Your task to perform on an android device: change the clock display to show seconds Image 0: 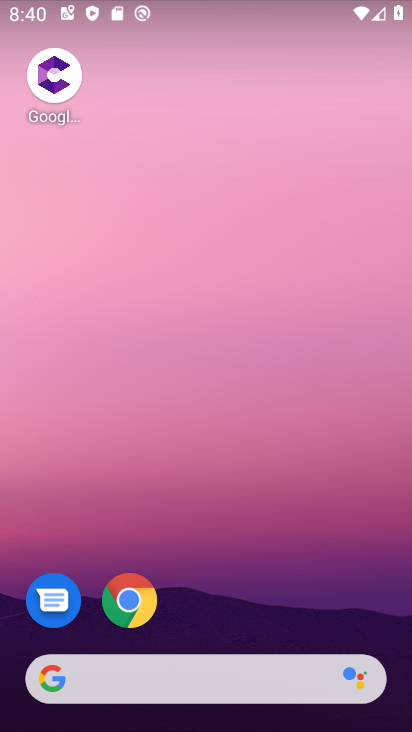
Step 0: drag from (261, 622) to (297, 36)
Your task to perform on an android device: change the clock display to show seconds Image 1: 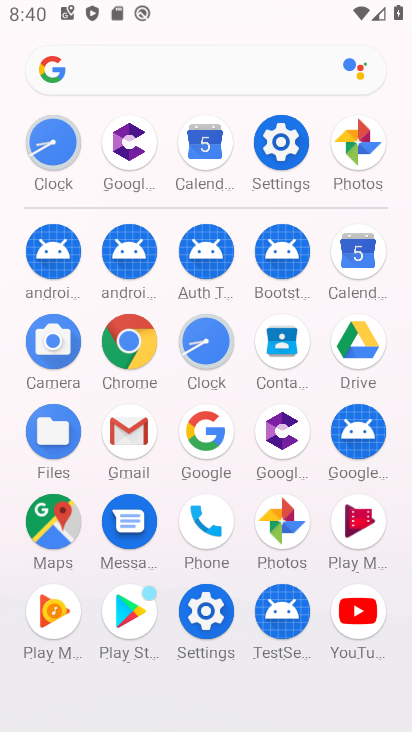
Step 1: click (65, 138)
Your task to perform on an android device: change the clock display to show seconds Image 2: 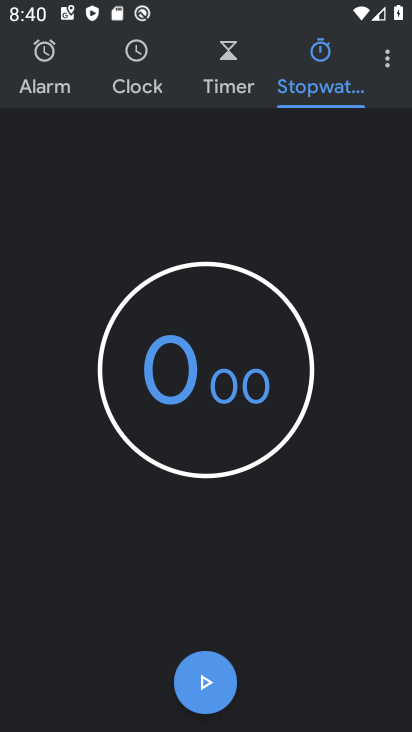
Step 2: click (384, 61)
Your task to perform on an android device: change the clock display to show seconds Image 3: 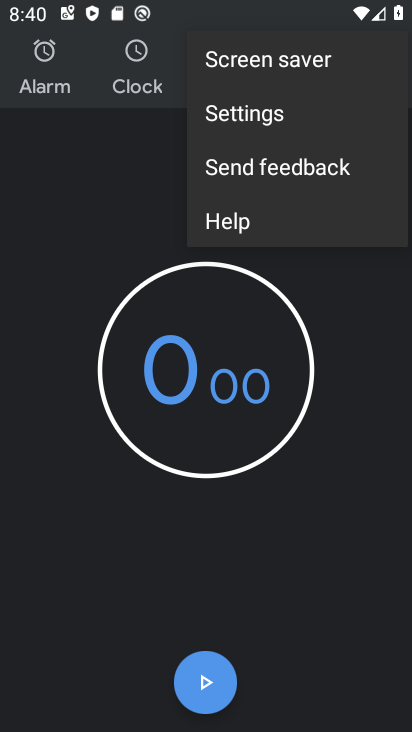
Step 3: click (309, 129)
Your task to perform on an android device: change the clock display to show seconds Image 4: 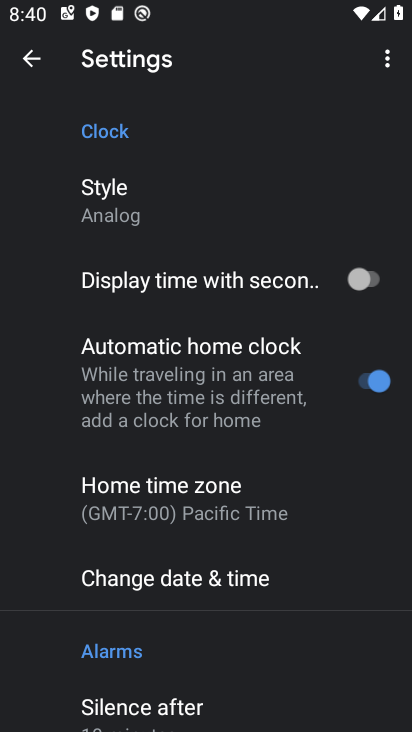
Step 4: click (362, 276)
Your task to perform on an android device: change the clock display to show seconds Image 5: 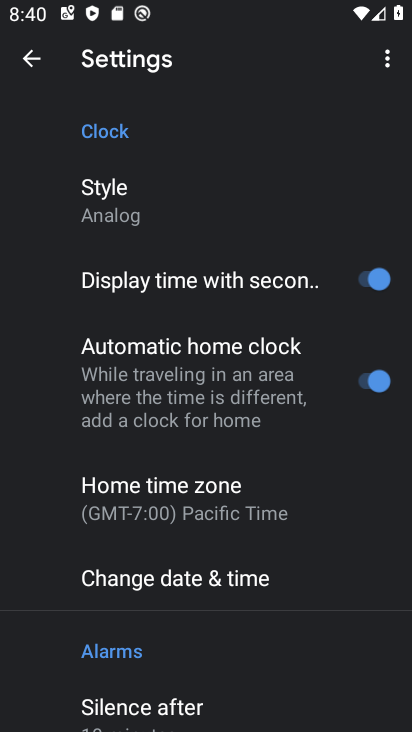
Step 5: task complete